Your task to perform on an android device: toggle data saver in the chrome app Image 0: 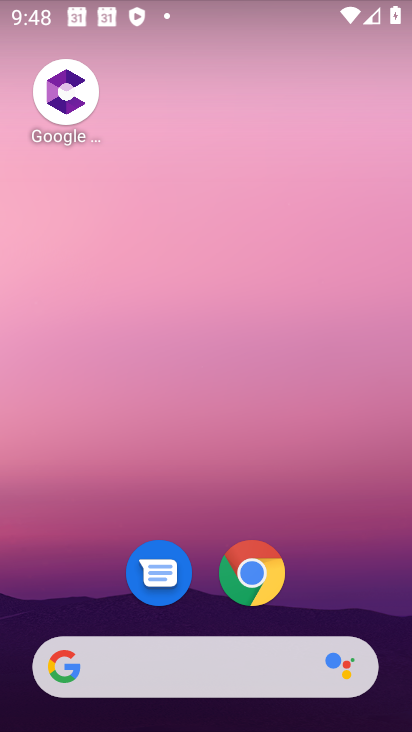
Step 0: click (252, 570)
Your task to perform on an android device: toggle data saver in the chrome app Image 1: 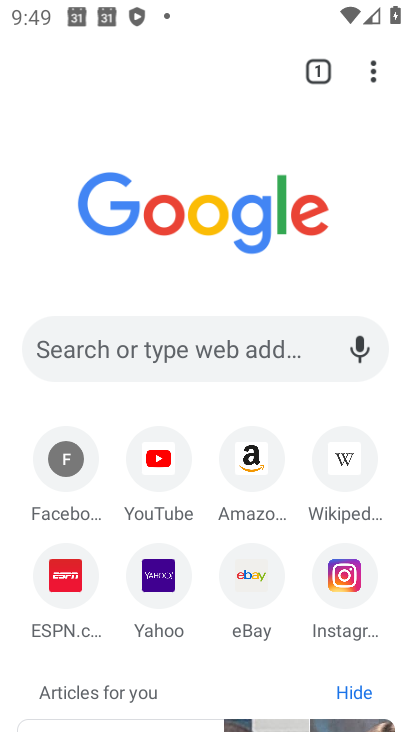
Step 1: click (376, 67)
Your task to perform on an android device: toggle data saver in the chrome app Image 2: 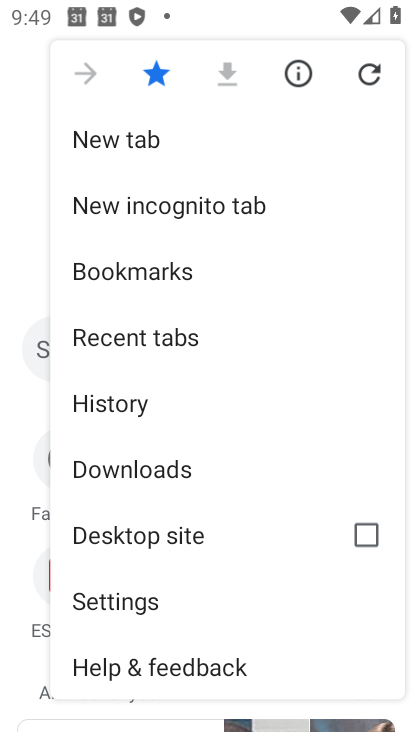
Step 2: drag from (207, 623) to (279, 171)
Your task to perform on an android device: toggle data saver in the chrome app Image 3: 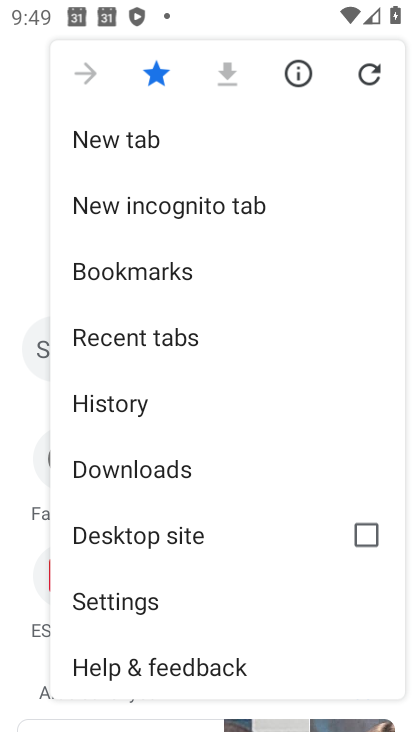
Step 3: click (144, 604)
Your task to perform on an android device: toggle data saver in the chrome app Image 4: 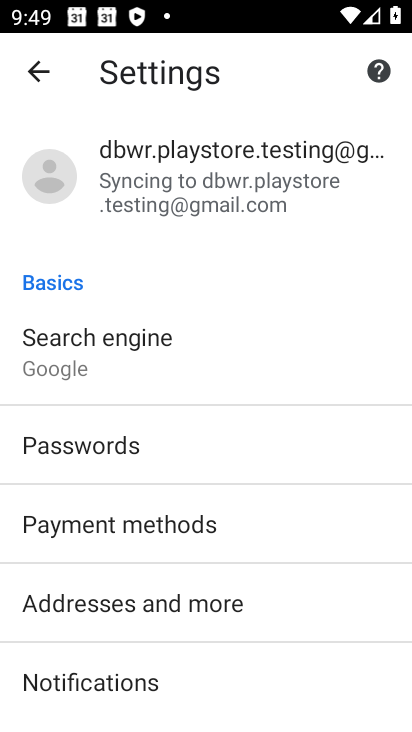
Step 4: drag from (225, 661) to (276, 250)
Your task to perform on an android device: toggle data saver in the chrome app Image 5: 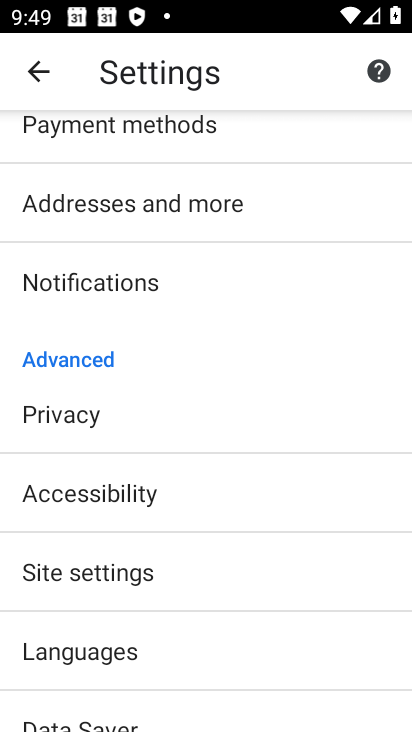
Step 5: click (114, 564)
Your task to perform on an android device: toggle data saver in the chrome app Image 6: 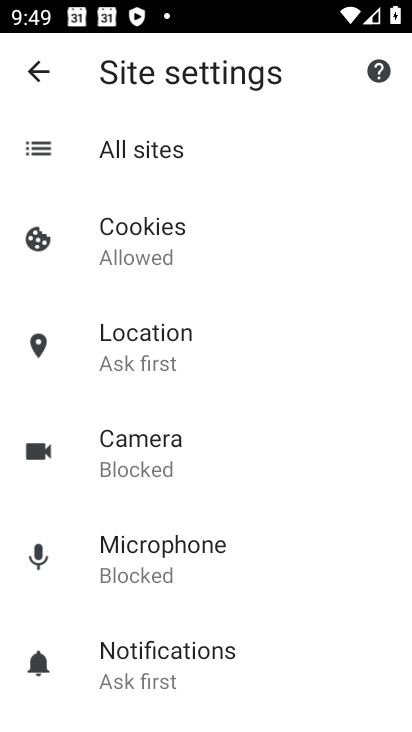
Step 6: drag from (210, 632) to (267, 239)
Your task to perform on an android device: toggle data saver in the chrome app Image 7: 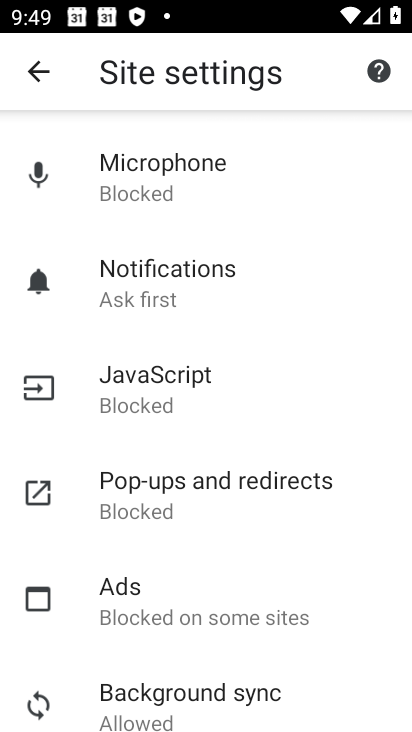
Step 7: click (162, 386)
Your task to perform on an android device: toggle data saver in the chrome app Image 8: 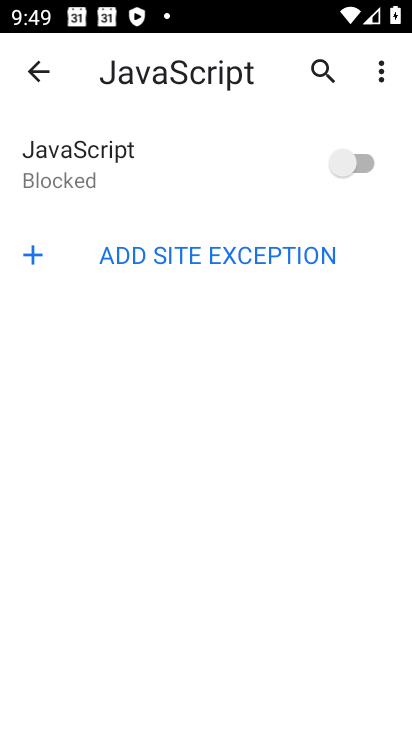
Step 8: click (40, 68)
Your task to perform on an android device: toggle data saver in the chrome app Image 9: 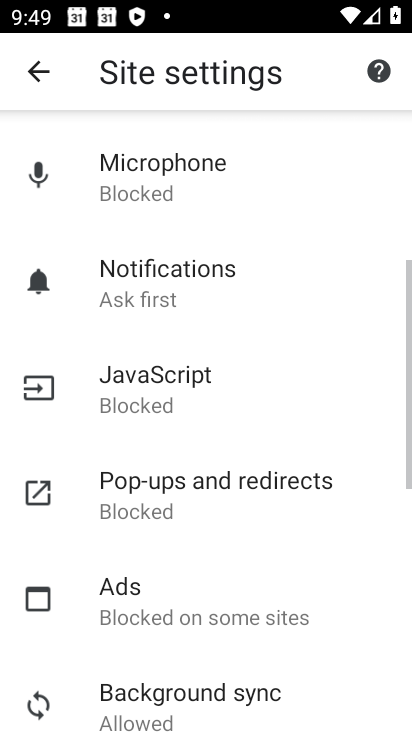
Step 9: click (40, 67)
Your task to perform on an android device: toggle data saver in the chrome app Image 10: 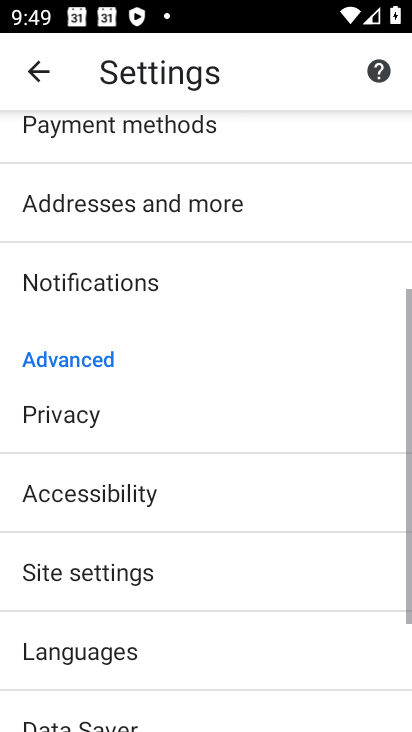
Step 10: drag from (205, 677) to (294, 199)
Your task to perform on an android device: toggle data saver in the chrome app Image 11: 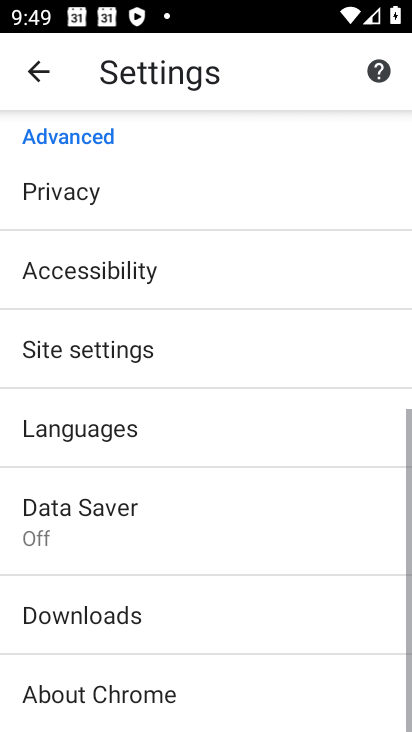
Step 11: drag from (178, 557) to (271, 250)
Your task to perform on an android device: toggle data saver in the chrome app Image 12: 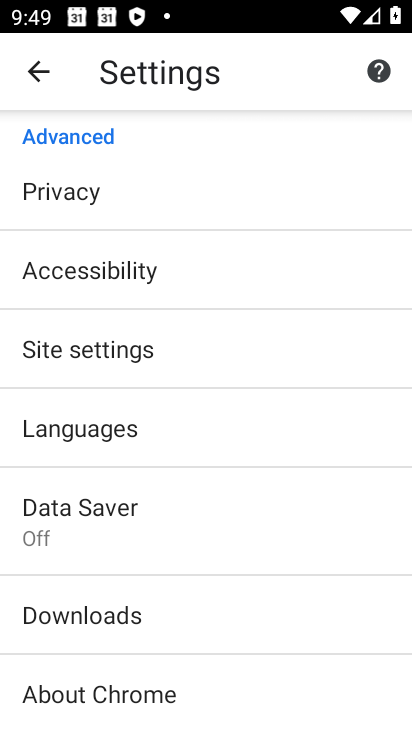
Step 12: click (97, 500)
Your task to perform on an android device: toggle data saver in the chrome app Image 13: 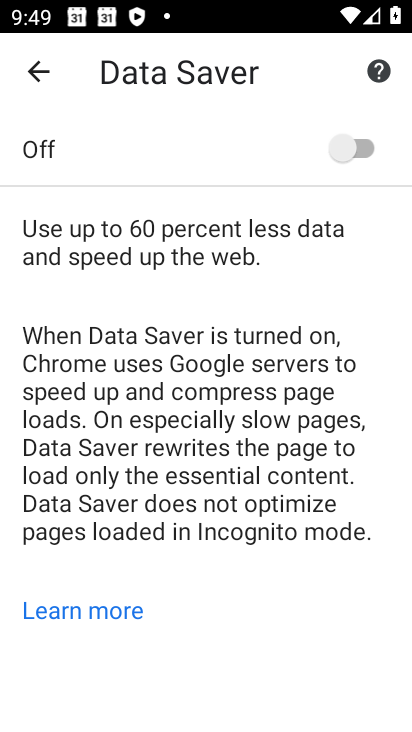
Step 13: click (359, 155)
Your task to perform on an android device: toggle data saver in the chrome app Image 14: 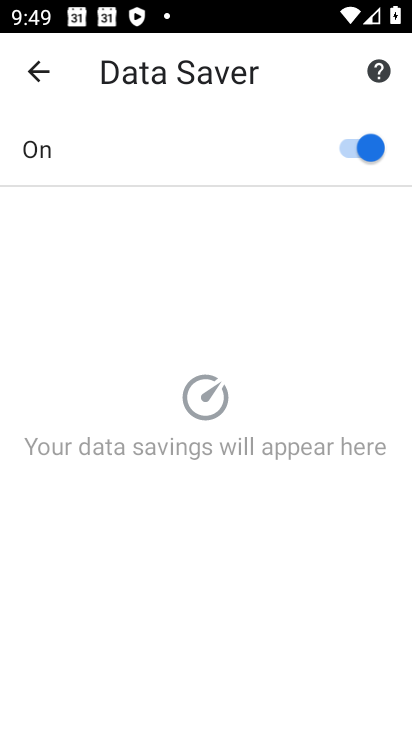
Step 14: task complete